Your task to perform on an android device: turn off airplane mode Image 0: 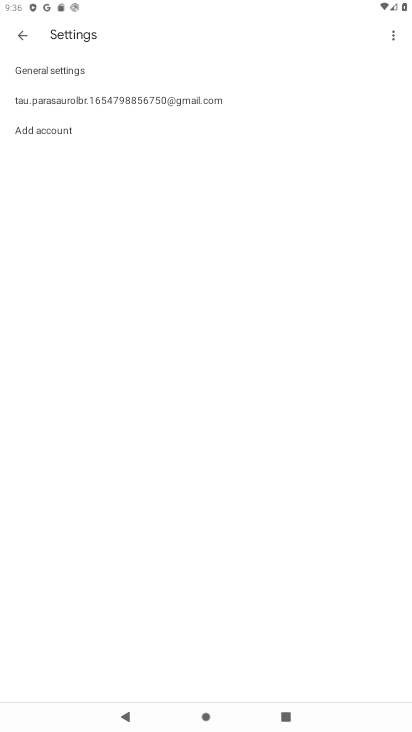
Step 0: drag from (269, 13) to (247, 500)
Your task to perform on an android device: turn off airplane mode Image 1: 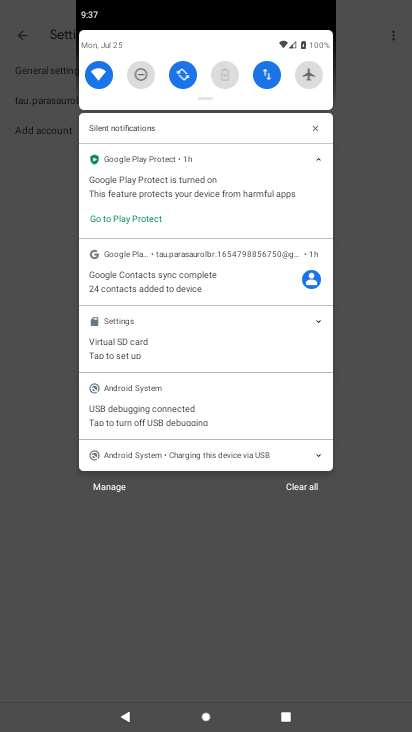
Step 1: task complete